Your task to perform on an android device: Check the weather Image 0: 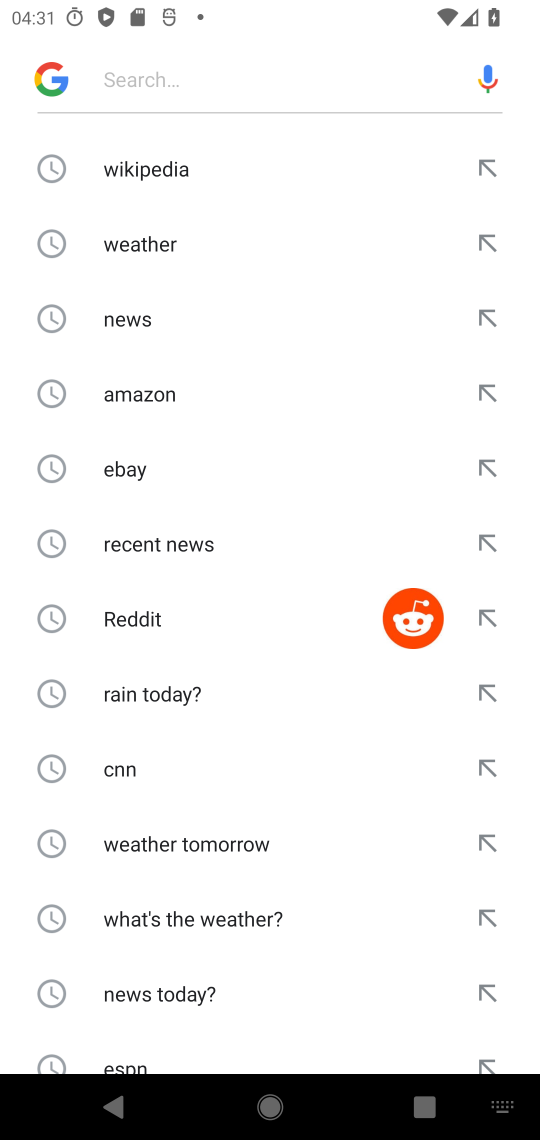
Step 0: press home button
Your task to perform on an android device: Check the weather Image 1: 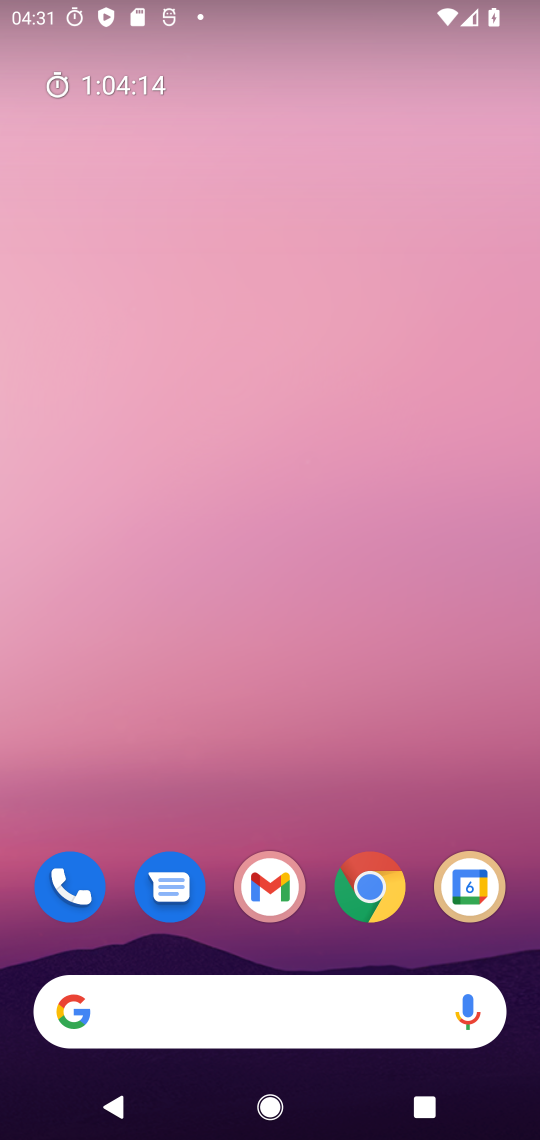
Step 1: click (259, 1008)
Your task to perform on an android device: Check the weather Image 2: 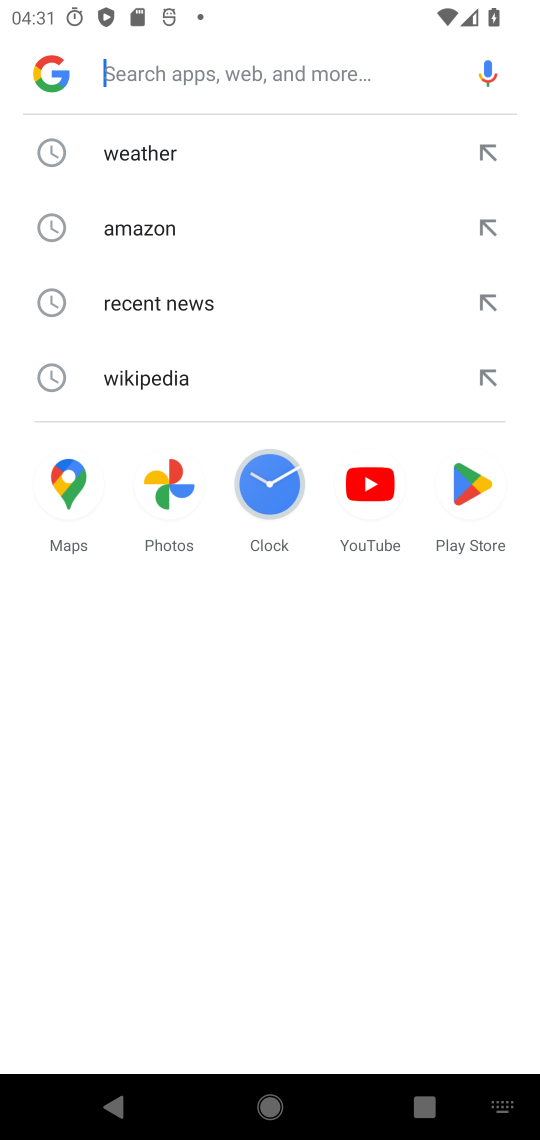
Step 2: click (153, 154)
Your task to perform on an android device: Check the weather Image 3: 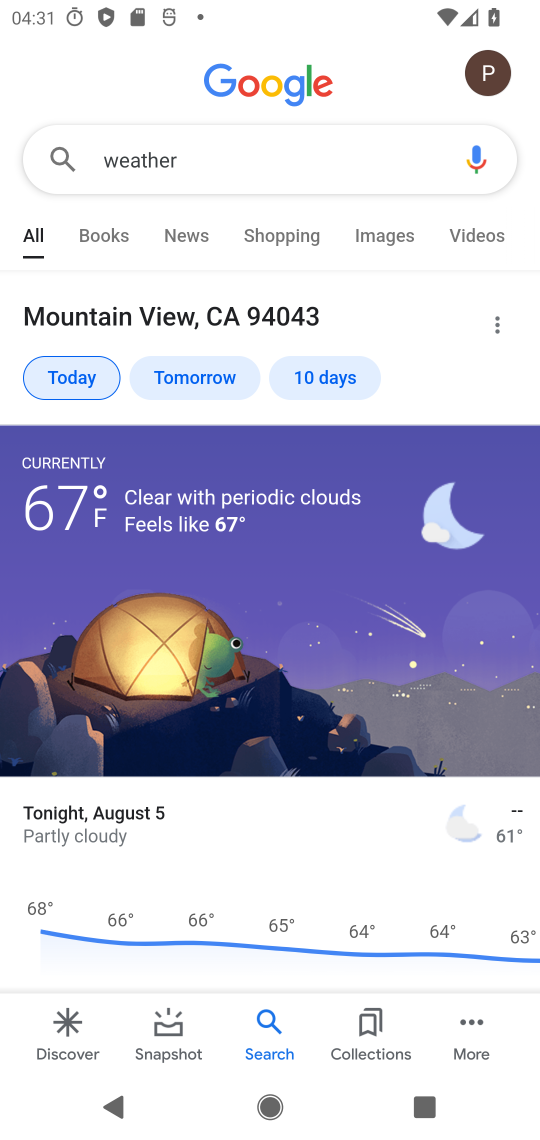
Step 3: task complete